Your task to perform on an android device: all mails in gmail Image 0: 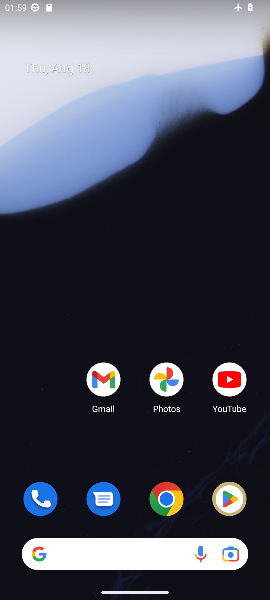
Step 0: click (96, 377)
Your task to perform on an android device: all mails in gmail Image 1: 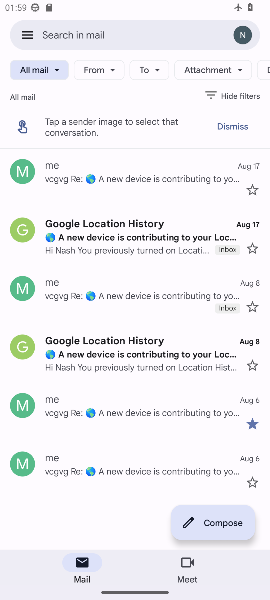
Step 1: task complete